Your task to perform on an android device: Open settings on Google Maps Image 0: 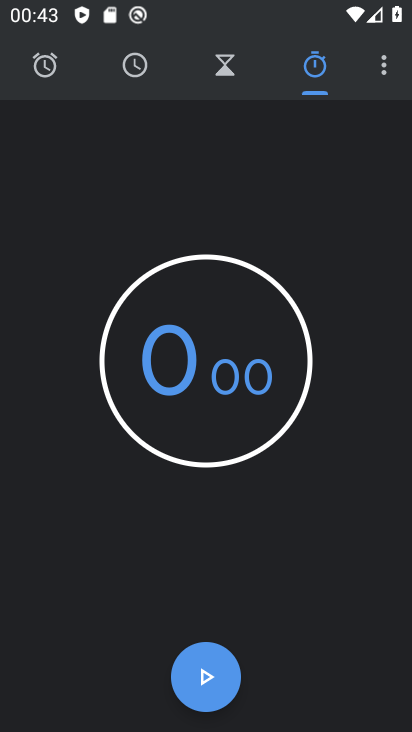
Step 0: press home button
Your task to perform on an android device: Open settings on Google Maps Image 1: 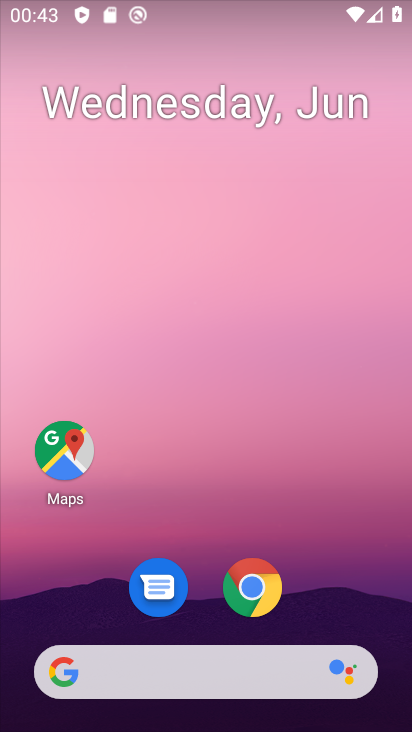
Step 1: drag from (331, 577) to (327, 163)
Your task to perform on an android device: Open settings on Google Maps Image 2: 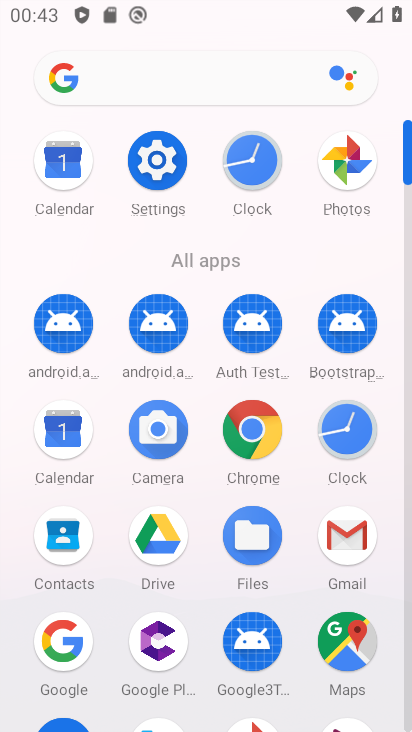
Step 2: click (352, 636)
Your task to perform on an android device: Open settings on Google Maps Image 3: 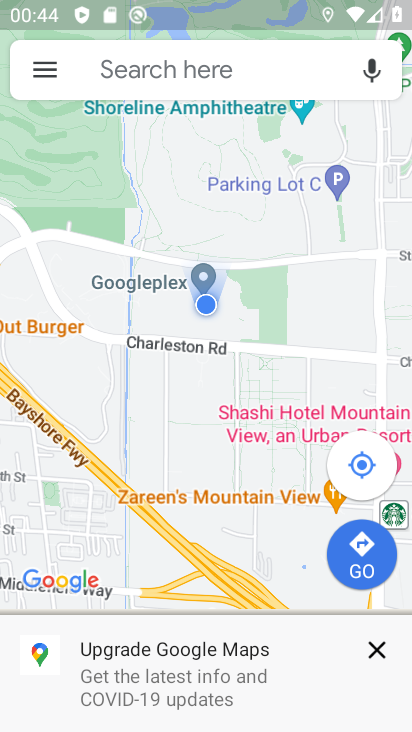
Step 3: task complete